Your task to perform on an android device: Go to location settings Image 0: 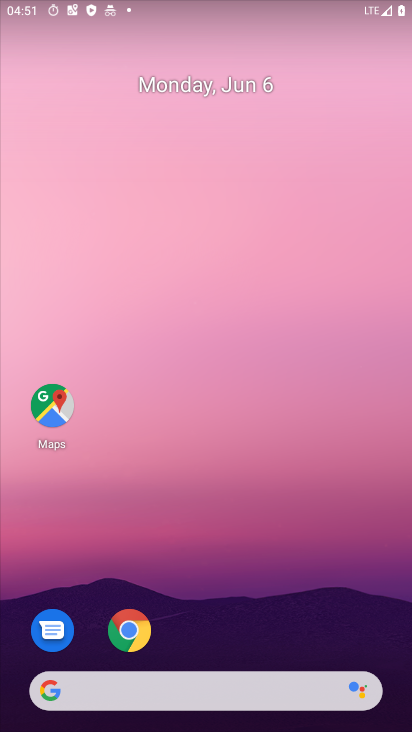
Step 0: drag from (293, 645) to (353, 89)
Your task to perform on an android device: Go to location settings Image 1: 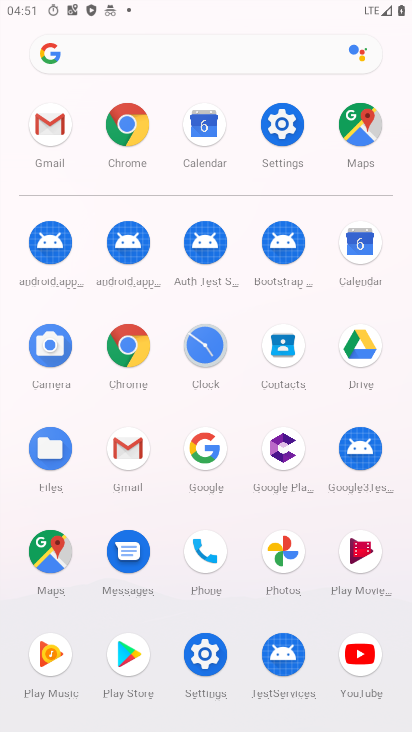
Step 1: click (289, 144)
Your task to perform on an android device: Go to location settings Image 2: 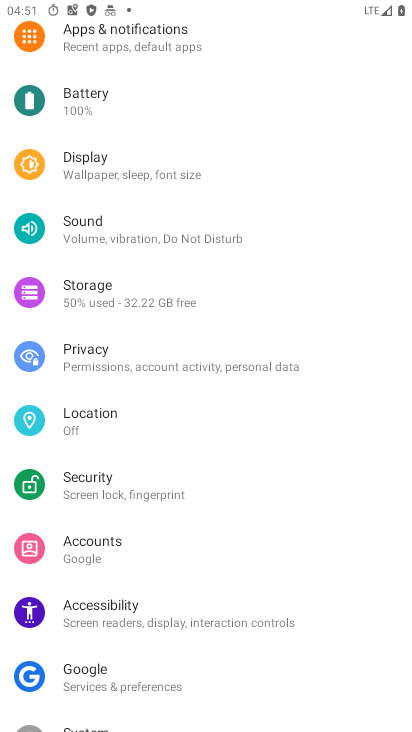
Step 2: click (98, 418)
Your task to perform on an android device: Go to location settings Image 3: 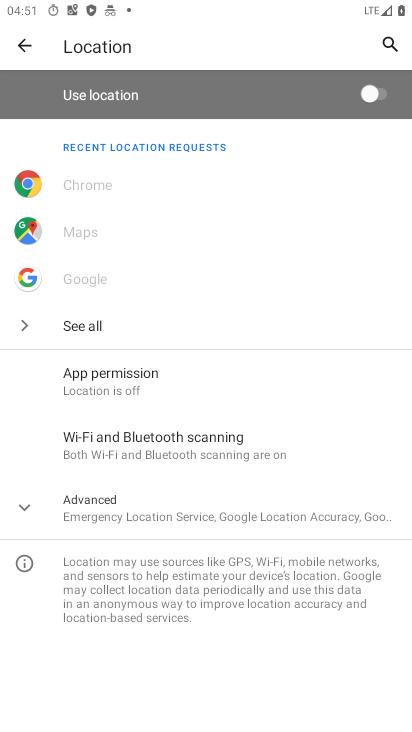
Step 3: task complete